Your task to perform on an android device: turn pop-ups off in chrome Image 0: 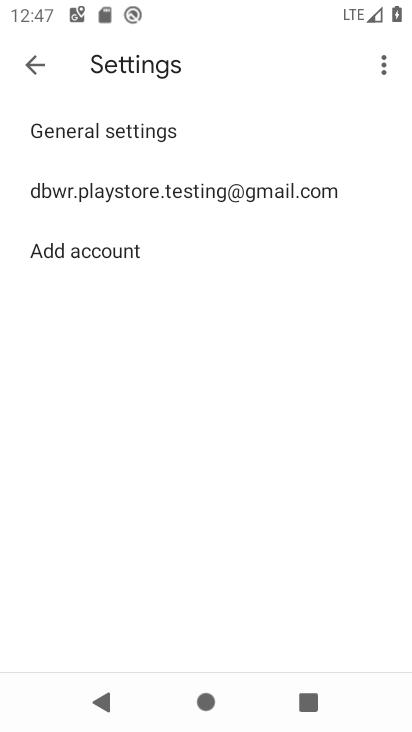
Step 0: press home button
Your task to perform on an android device: turn pop-ups off in chrome Image 1: 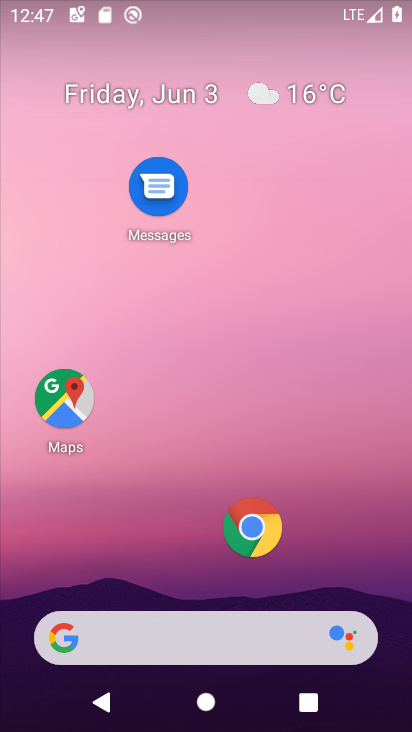
Step 1: click (248, 523)
Your task to perform on an android device: turn pop-ups off in chrome Image 2: 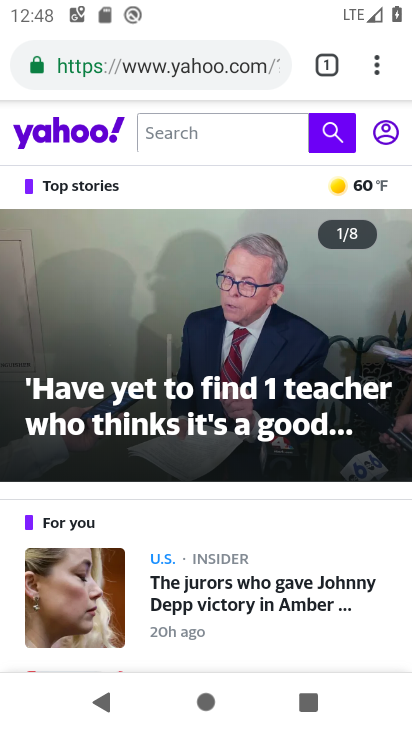
Step 2: click (370, 59)
Your task to perform on an android device: turn pop-ups off in chrome Image 3: 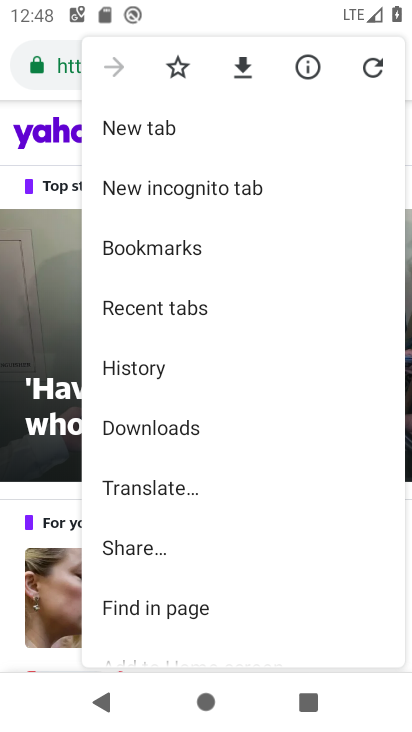
Step 3: drag from (238, 616) to (280, 127)
Your task to perform on an android device: turn pop-ups off in chrome Image 4: 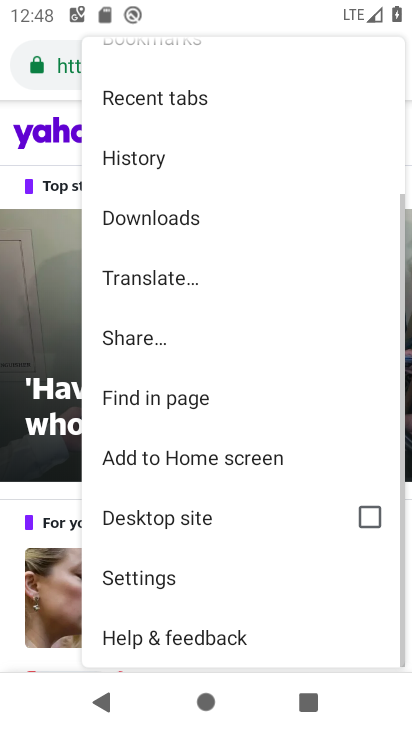
Step 4: click (184, 569)
Your task to perform on an android device: turn pop-ups off in chrome Image 5: 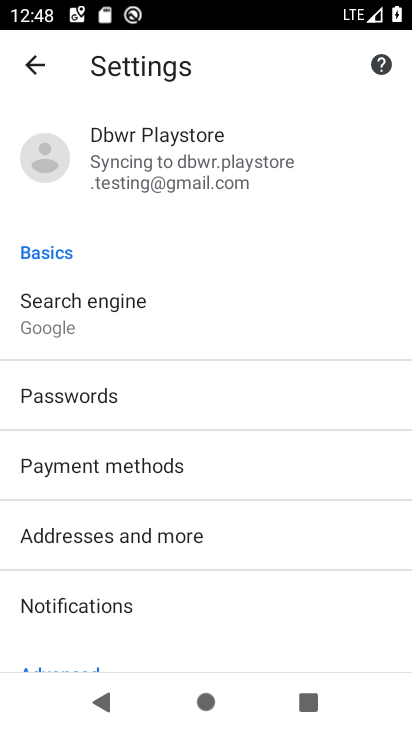
Step 5: drag from (206, 604) to (221, 107)
Your task to perform on an android device: turn pop-ups off in chrome Image 6: 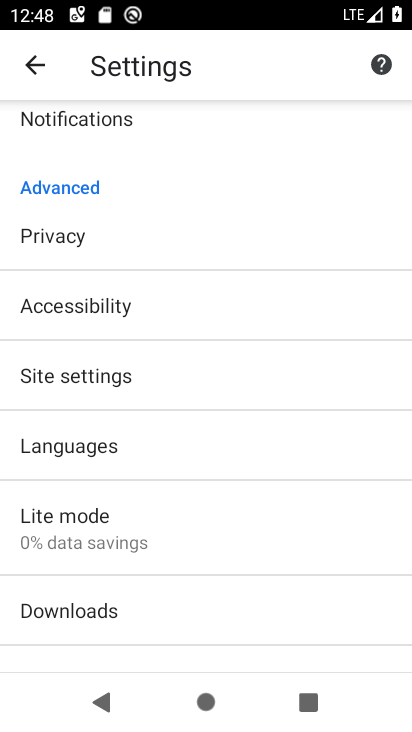
Step 6: click (153, 378)
Your task to perform on an android device: turn pop-ups off in chrome Image 7: 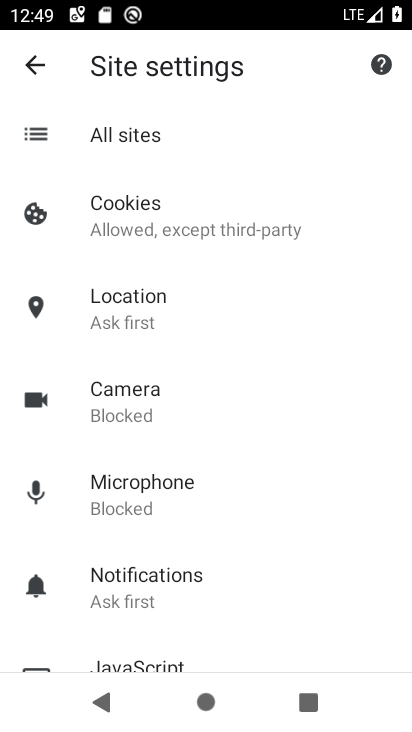
Step 7: drag from (215, 640) to (235, 160)
Your task to perform on an android device: turn pop-ups off in chrome Image 8: 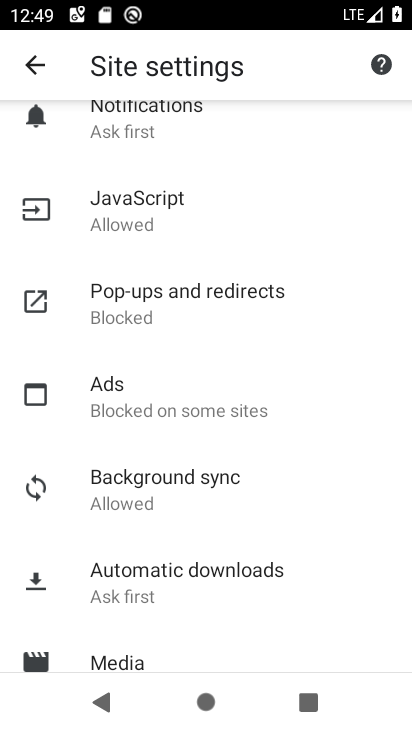
Step 8: click (176, 306)
Your task to perform on an android device: turn pop-ups off in chrome Image 9: 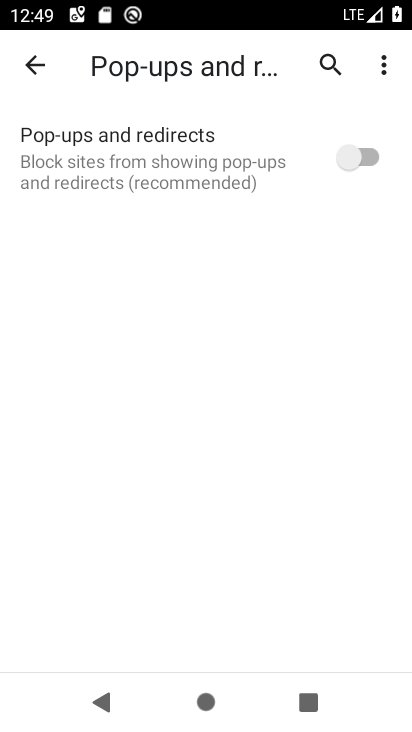
Step 9: task complete